Your task to perform on an android device: Check the news Image 0: 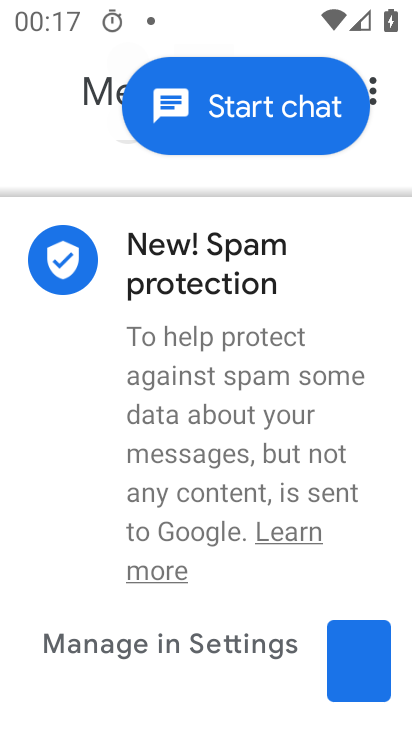
Step 0: press home button
Your task to perform on an android device: Check the news Image 1: 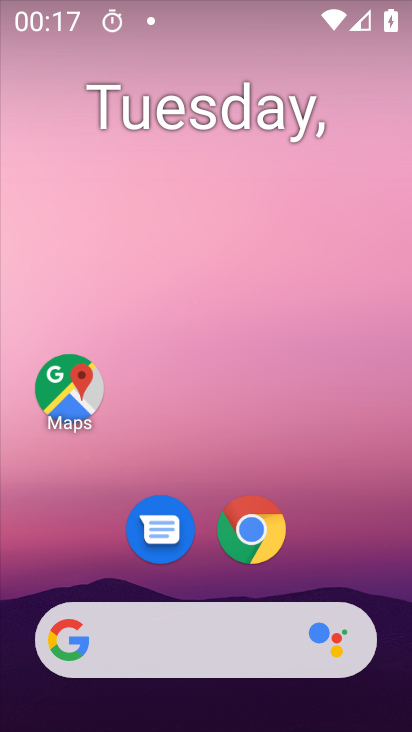
Step 1: click (248, 527)
Your task to perform on an android device: Check the news Image 2: 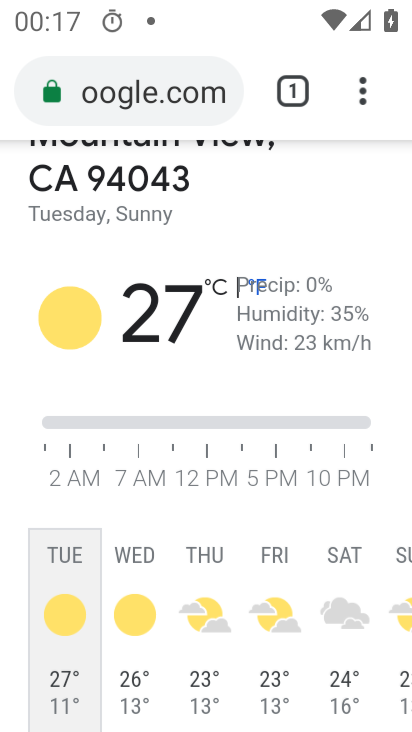
Step 2: click (191, 109)
Your task to perform on an android device: Check the news Image 3: 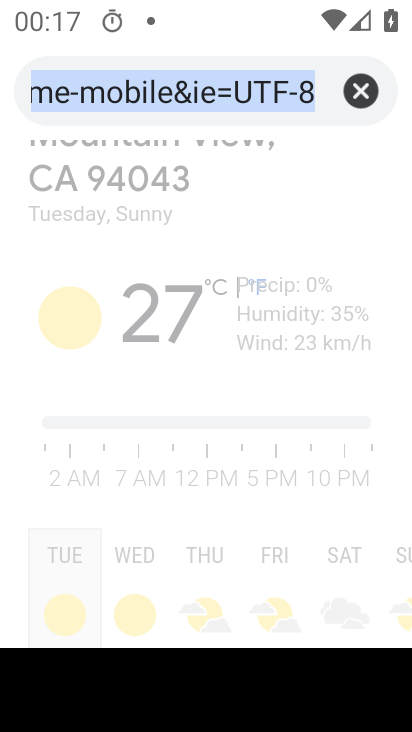
Step 3: click (341, 95)
Your task to perform on an android device: Check the news Image 4: 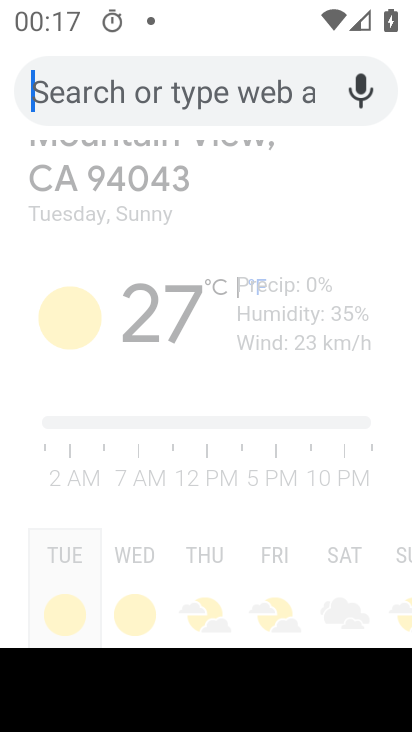
Step 4: type "news"
Your task to perform on an android device: Check the news Image 5: 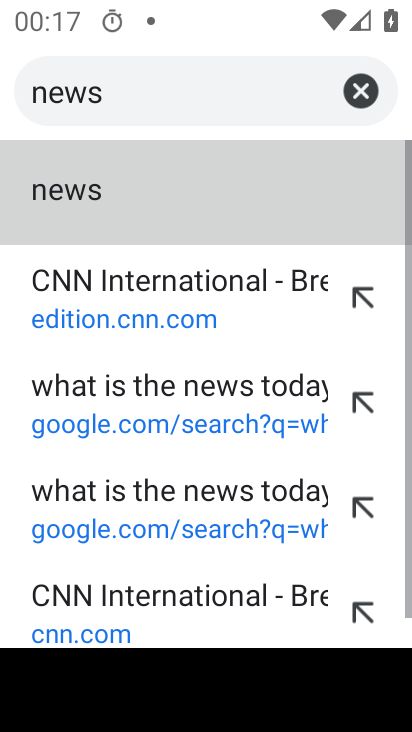
Step 5: click (286, 146)
Your task to perform on an android device: Check the news Image 6: 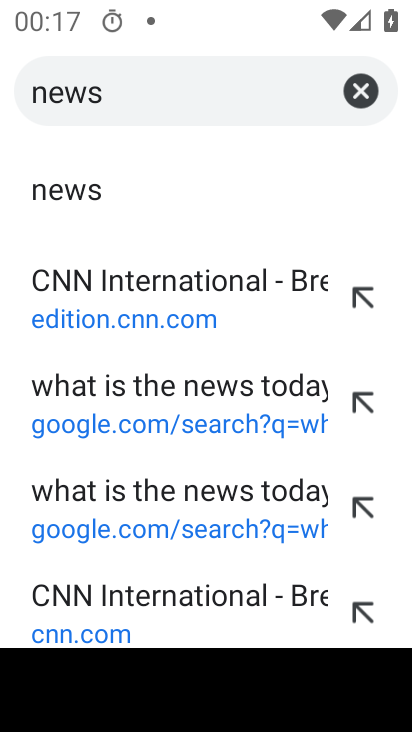
Step 6: click (299, 213)
Your task to perform on an android device: Check the news Image 7: 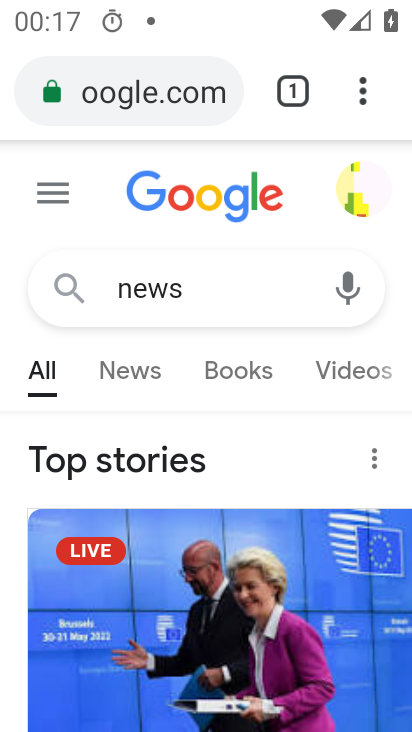
Step 7: task complete